Your task to perform on an android device: Set the phone to "Do not disturb". Image 0: 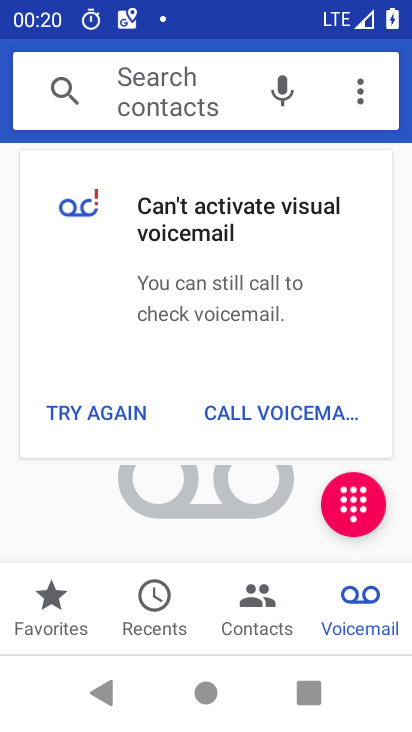
Step 0: press home button
Your task to perform on an android device: Set the phone to "Do not disturb". Image 1: 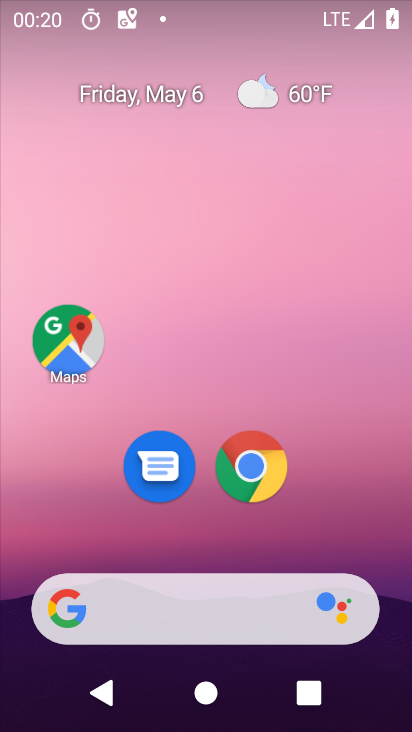
Step 1: drag from (140, 578) to (197, 129)
Your task to perform on an android device: Set the phone to "Do not disturb". Image 2: 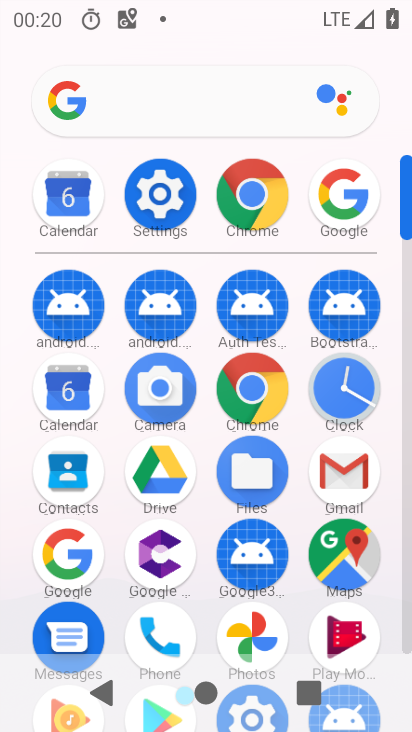
Step 2: click (142, 200)
Your task to perform on an android device: Set the phone to "Do not disturb". Image 3: 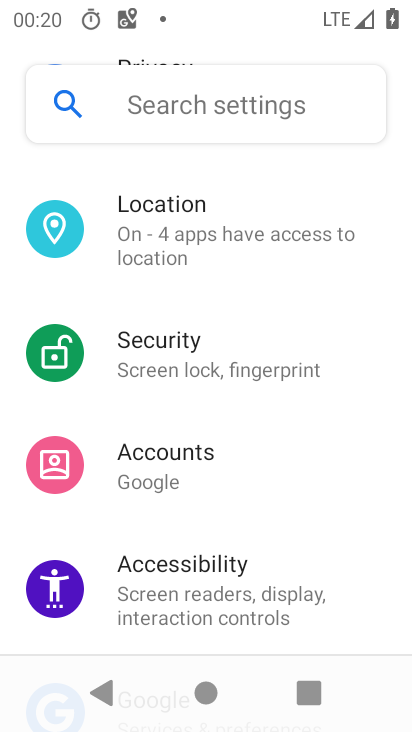
Step 3: drag from (186, 606) to (224, 273)
Your task to perform on an android device: Set the phone to "Do not disturb". Image 4: 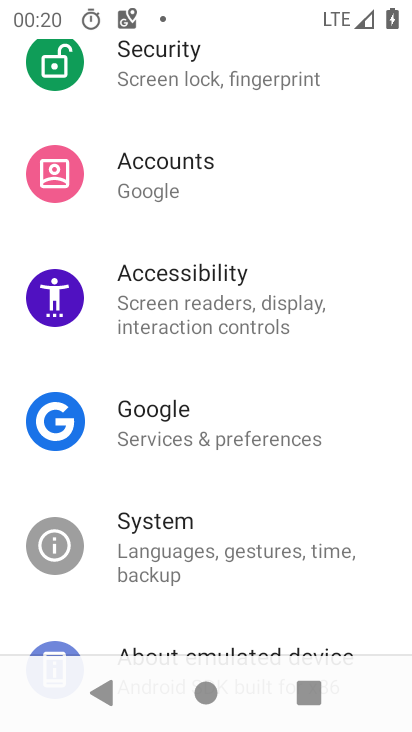
Step 4: drag from (236, 605) to (234, 272)
Your task to perform on an android device: Set the phone to "Do not disturb". Image 5: 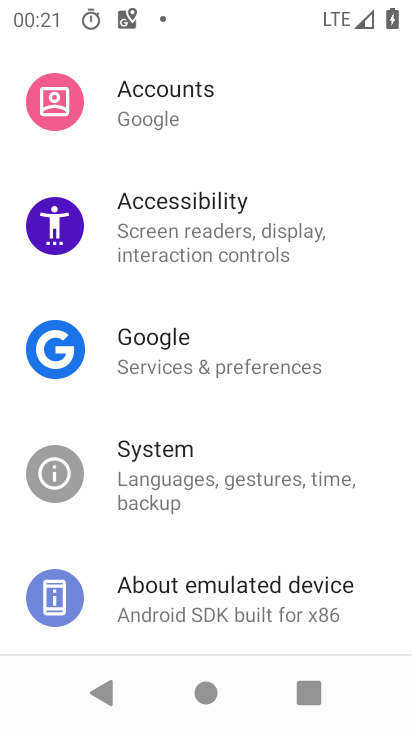
Step 5: drag from (239, 154) to (274, 542)
Your task to perform on an android device: Set the phone to "Do not disturb". Image 6: 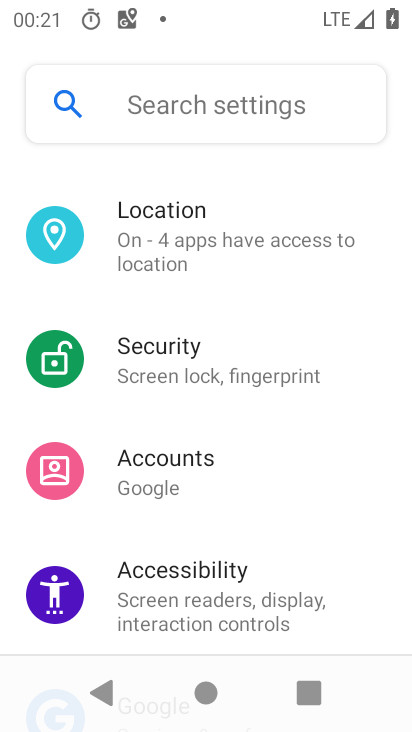
Step 6: drag from (294, 194) to (319, 603)
Your task to perform on an android device: Set the phone to "Do not disturb". Image 7: 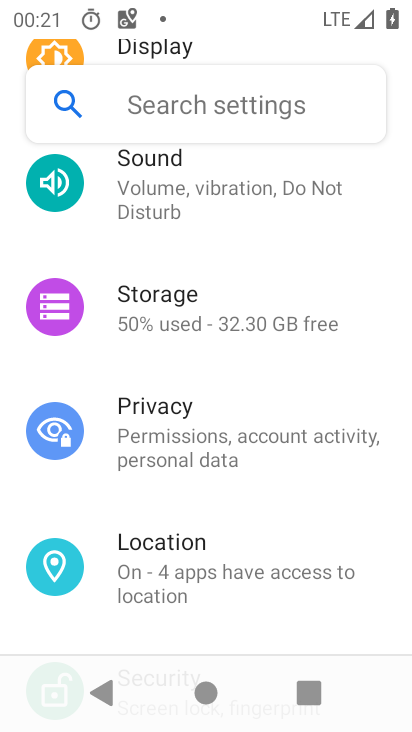
Step 7: click (243, 187)
Your task to perform on an android device: Set the phone to "Do not disturb". Image 8: 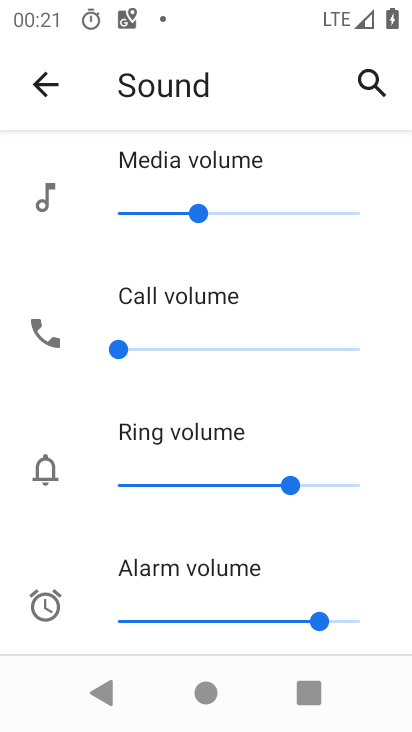
Step 8: drag from (197, 651) to (203, 294)
Your task to perform on an android device: Set the phone to "Do not disturb". Image 9: 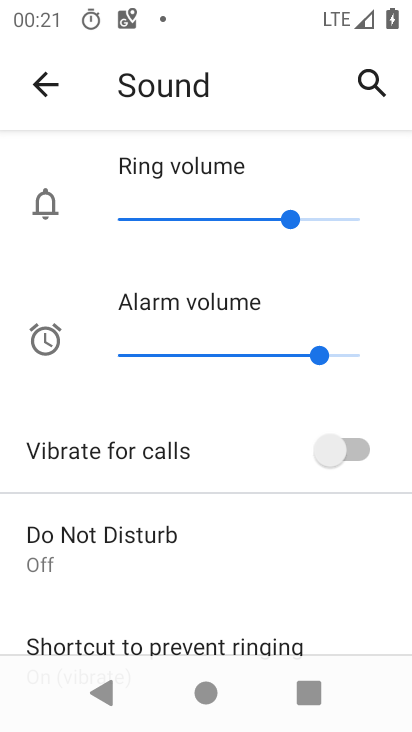
Step 9: click (71, 566)
Your task to perform on an android device: Set the phone to "Do not disturb". Image 10: 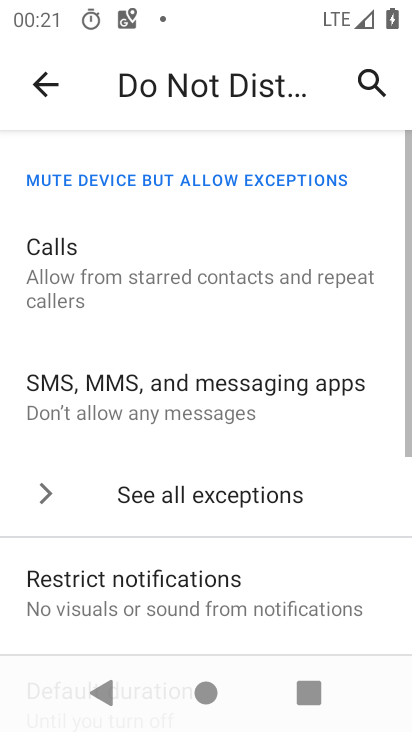
Step 10: drag from (122, 631) to (175, 340)
Your task to perform on an android device: Set the phone to "Do not disturb". Image 11: 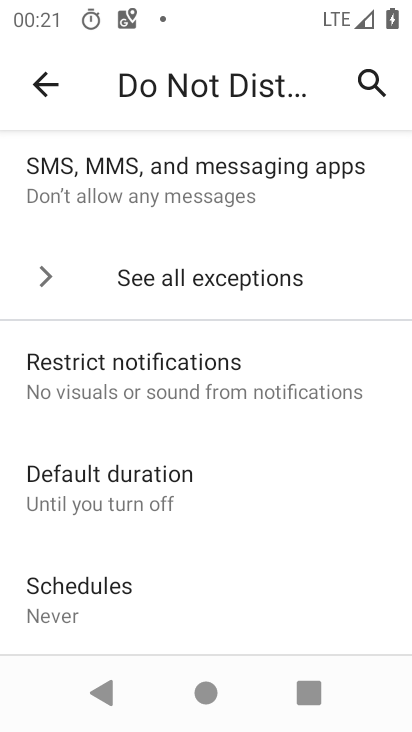
Step 11: drag from (135, 586) to (131, 352)
Your task to perform on an android device: Set the phone to "Do not disturb". Image 12: 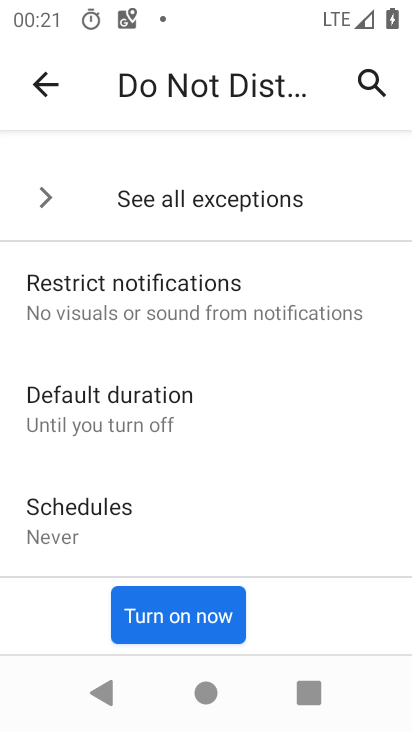
Step 12: click (203, 626)
Your task to perform on an android device: Set the phone to "Do not disturb". Image 13: 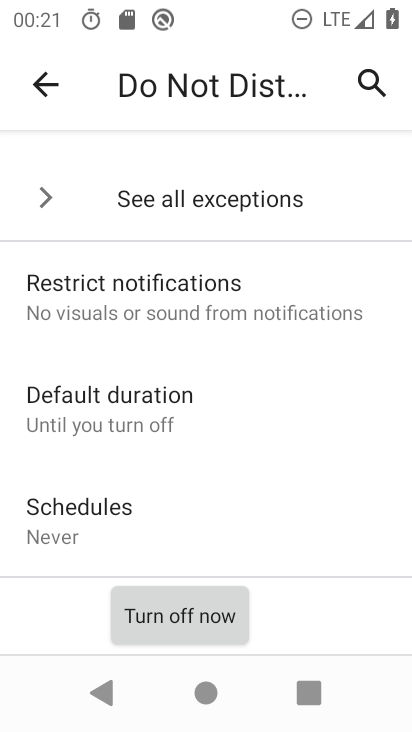
Step 13: task complete